Your task to perform on an android device: uninstall "Airtel Thanks" Image 0: 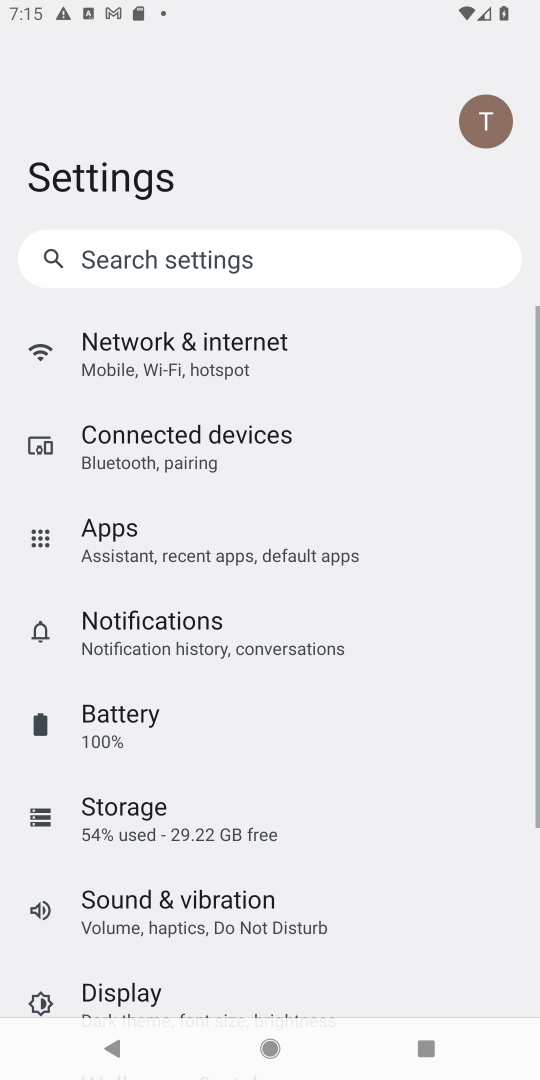
Step 0: press home button
Your task to perform on an android device: uninstall "Airtel Thanks" Image 1: 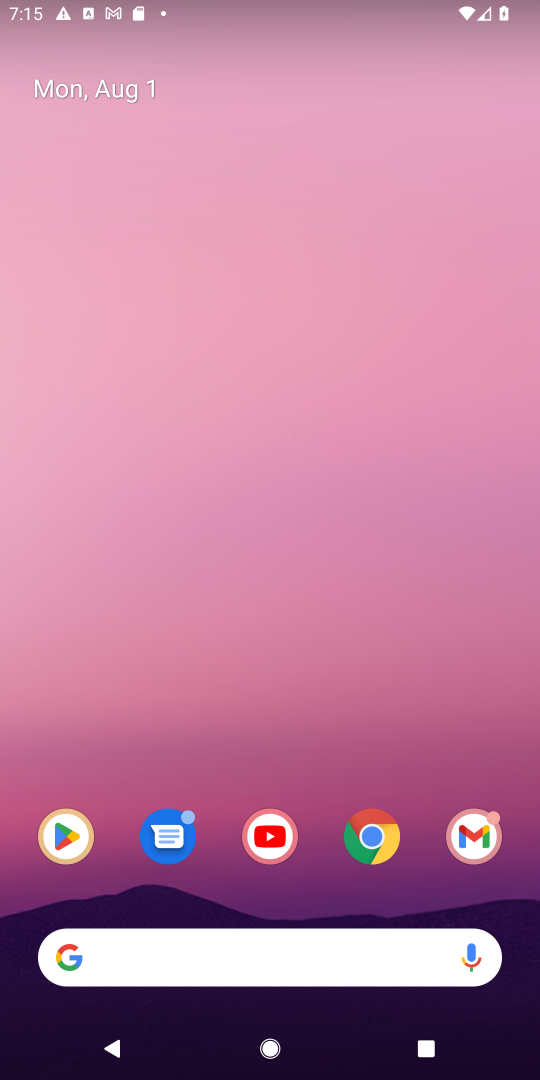
Step 1: click (57, 839)
Your task to perform on an android device: uninstall "Airtel Thanks" Image 2: 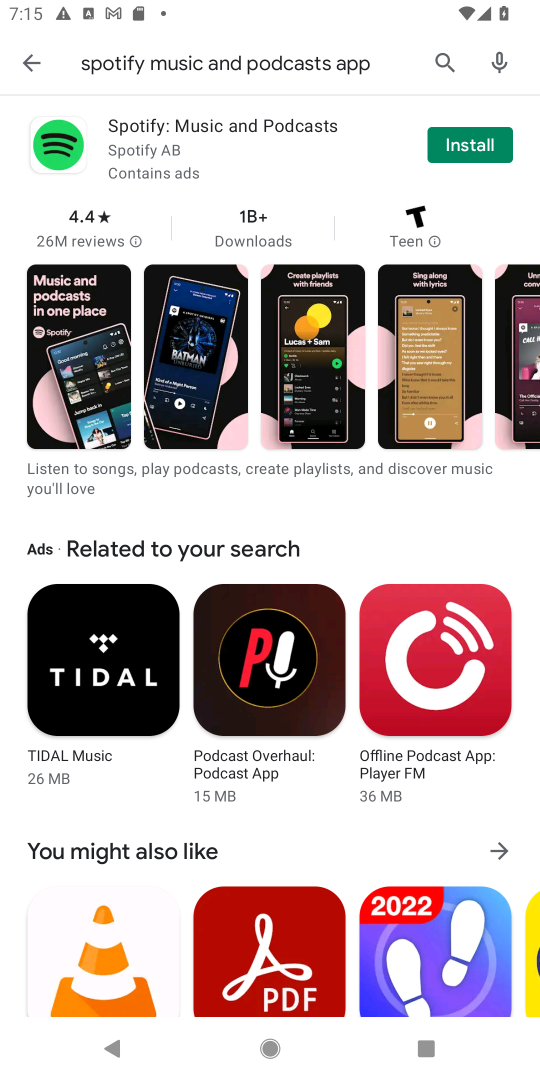
Step 2: click (435, 48)
Your task to perform on an android device: uninstall "Airtel Thanks" Image 3: 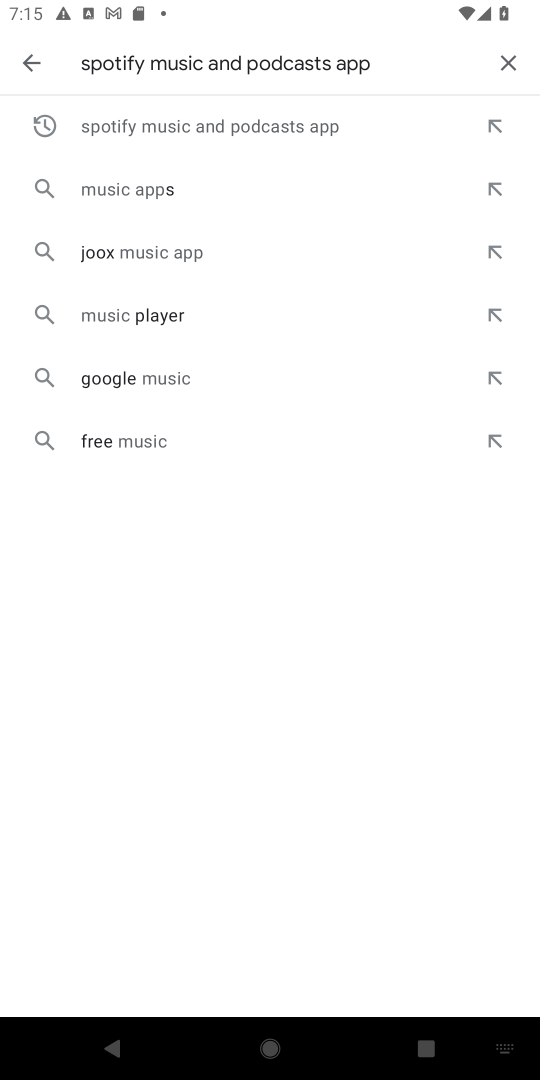
Step 3: click (500, 52)
Your task to perform on an android device: uninstall "Airtel Thanks" Image 4: 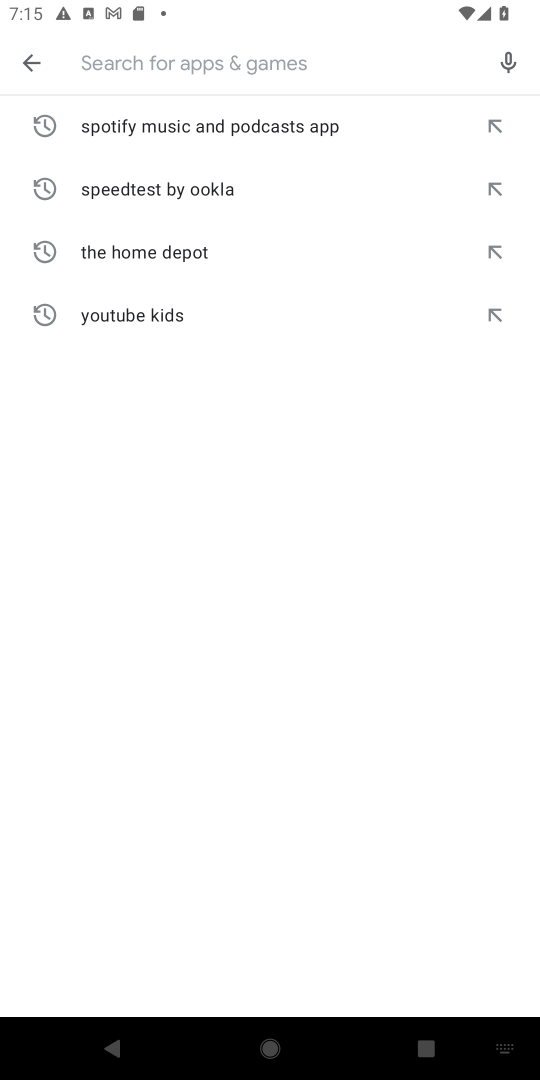
Step 4: type "Airtel Thanks"
Your task to perform on an android device: uninstall "Airtel Thanks" Image 5: 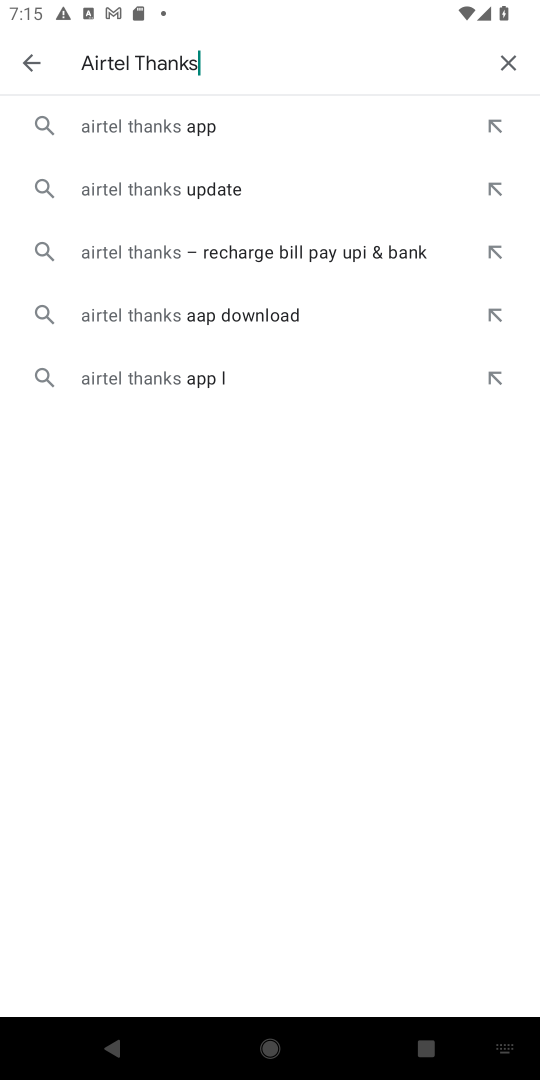
Step 5: click (234, 126)
Your task to perform on an android device: uninstall "Airtel Thanks" Image 6: 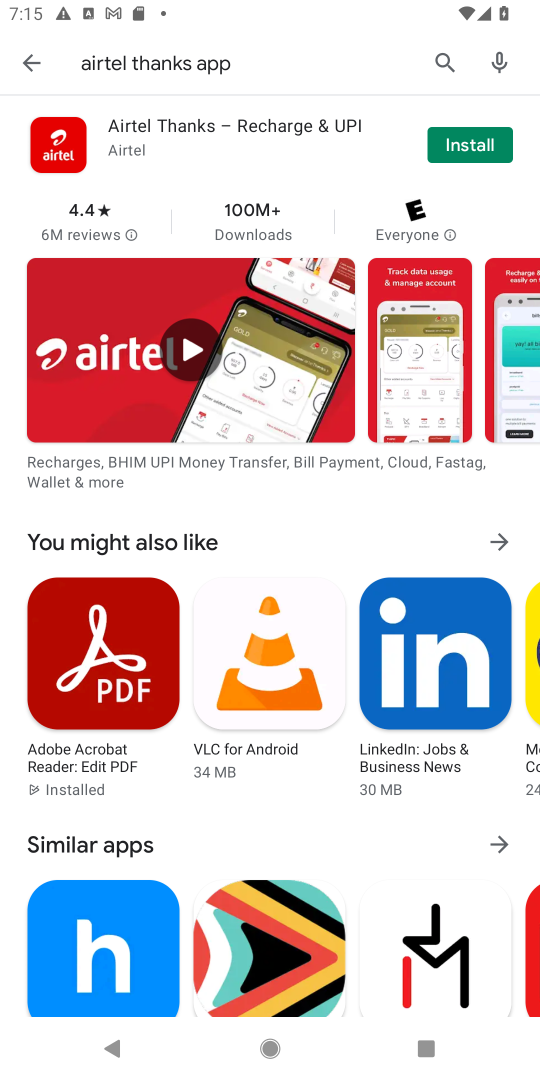
Step 6: task complete